Your task to perform on an android device: Empty the shopping cart on amazon.com. Image 0: 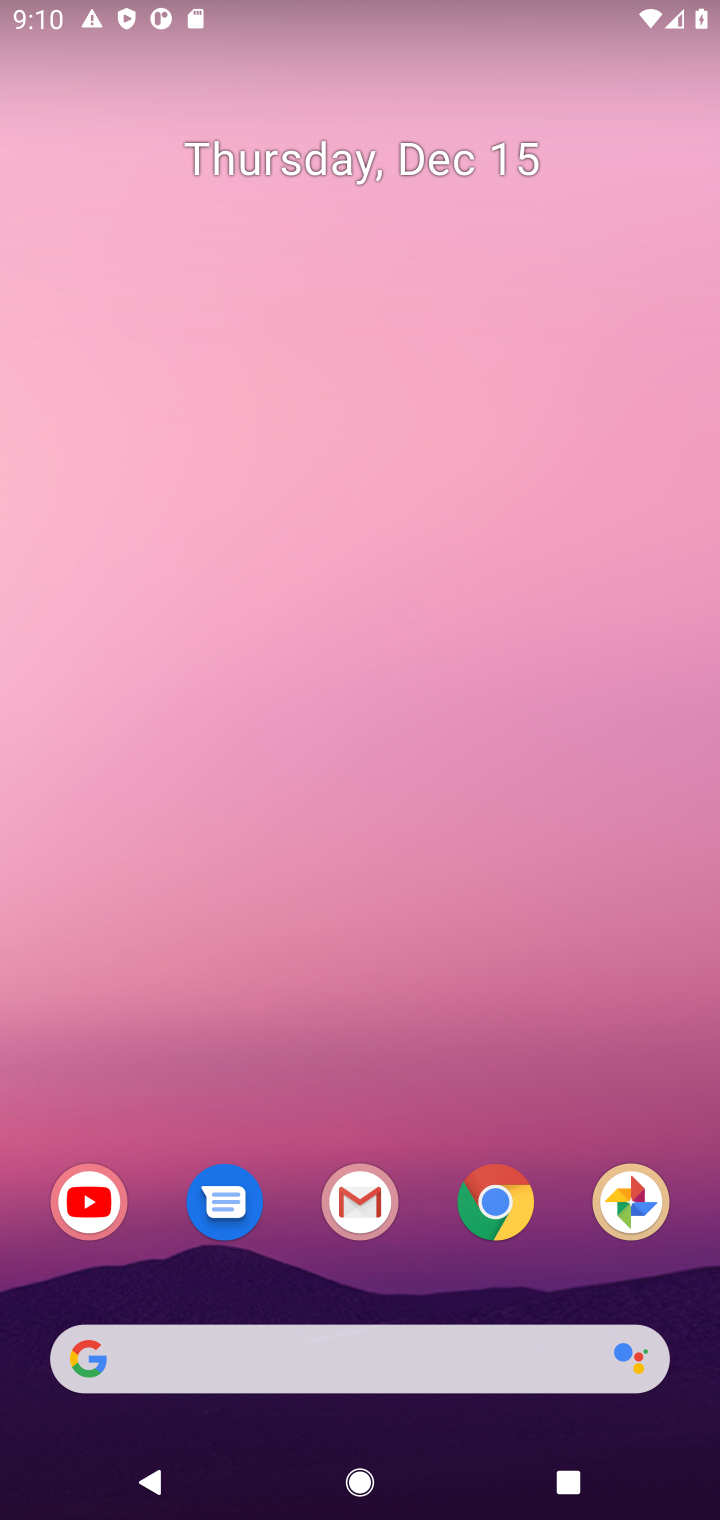
Step 0: click (497, 1196)
Your task to perform on an android device: Empty the shopping cart on amazon.com. Image 1: 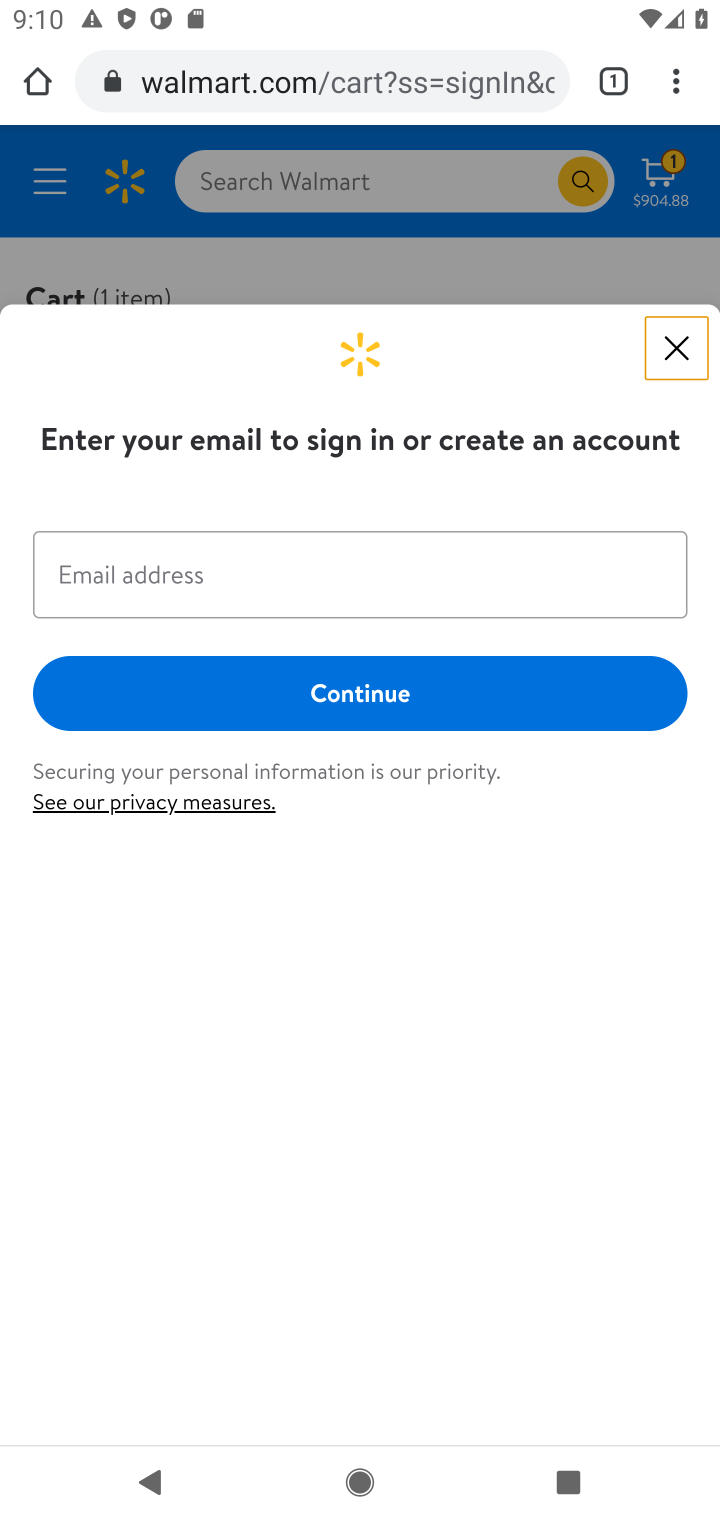
Step 1: click (281, 74)
Your task to perform on an android device: Empty the shopping cart on amazon.com. Image 2: 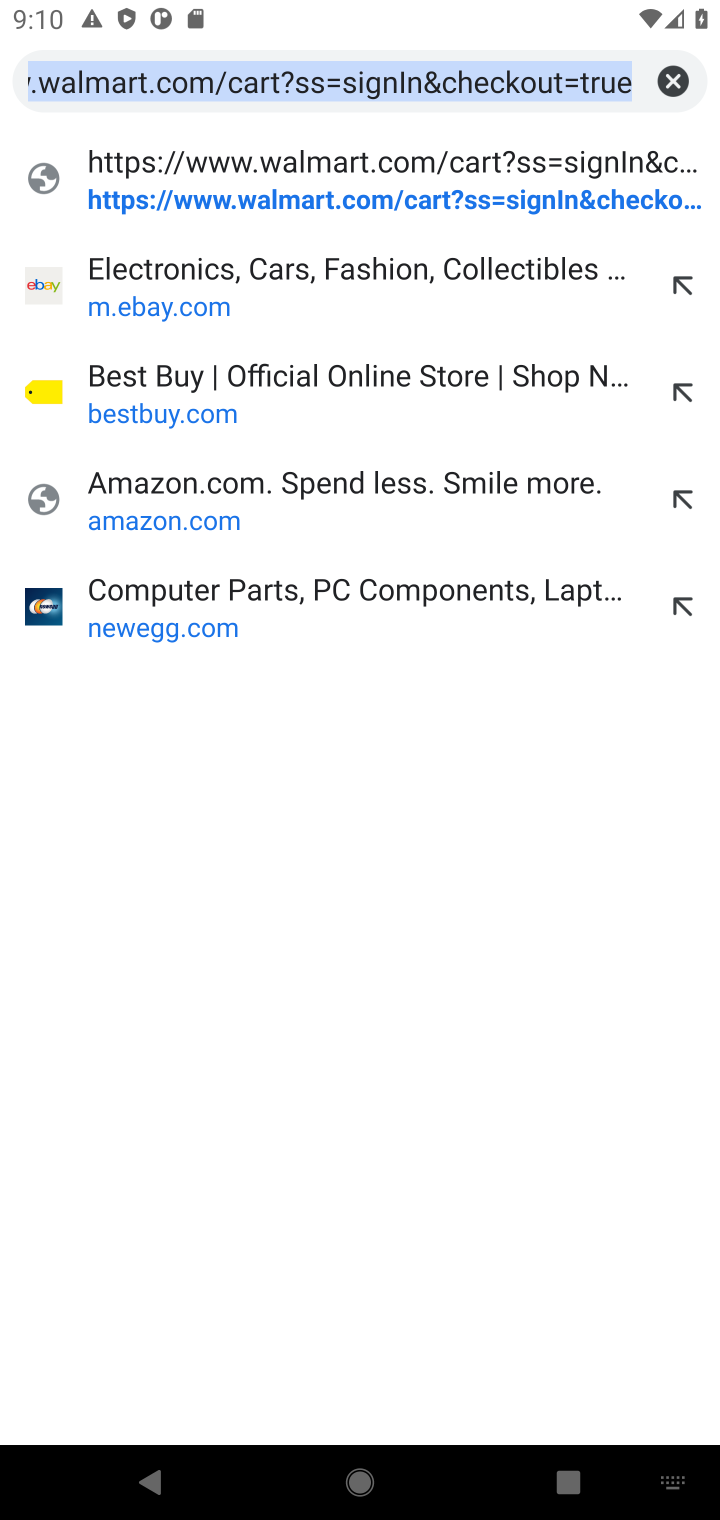
Step 2: click (143, 518)
Your task to perform on an android device: Empty the shopping cart on amazon.com. Image 3: 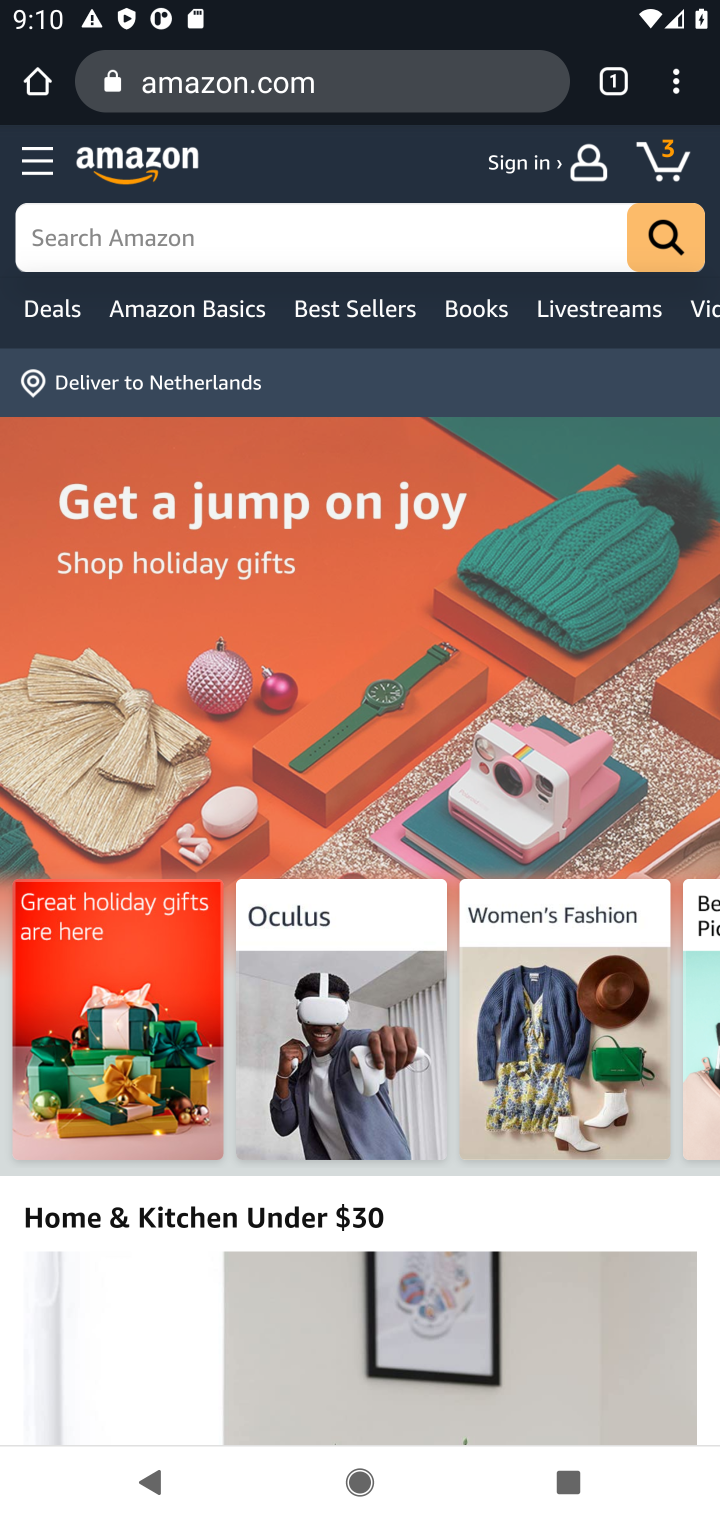
Step 3: click (651, 157)
Your task to perform on an android device: Empty the shopping cart on amazon.com. Image 4: 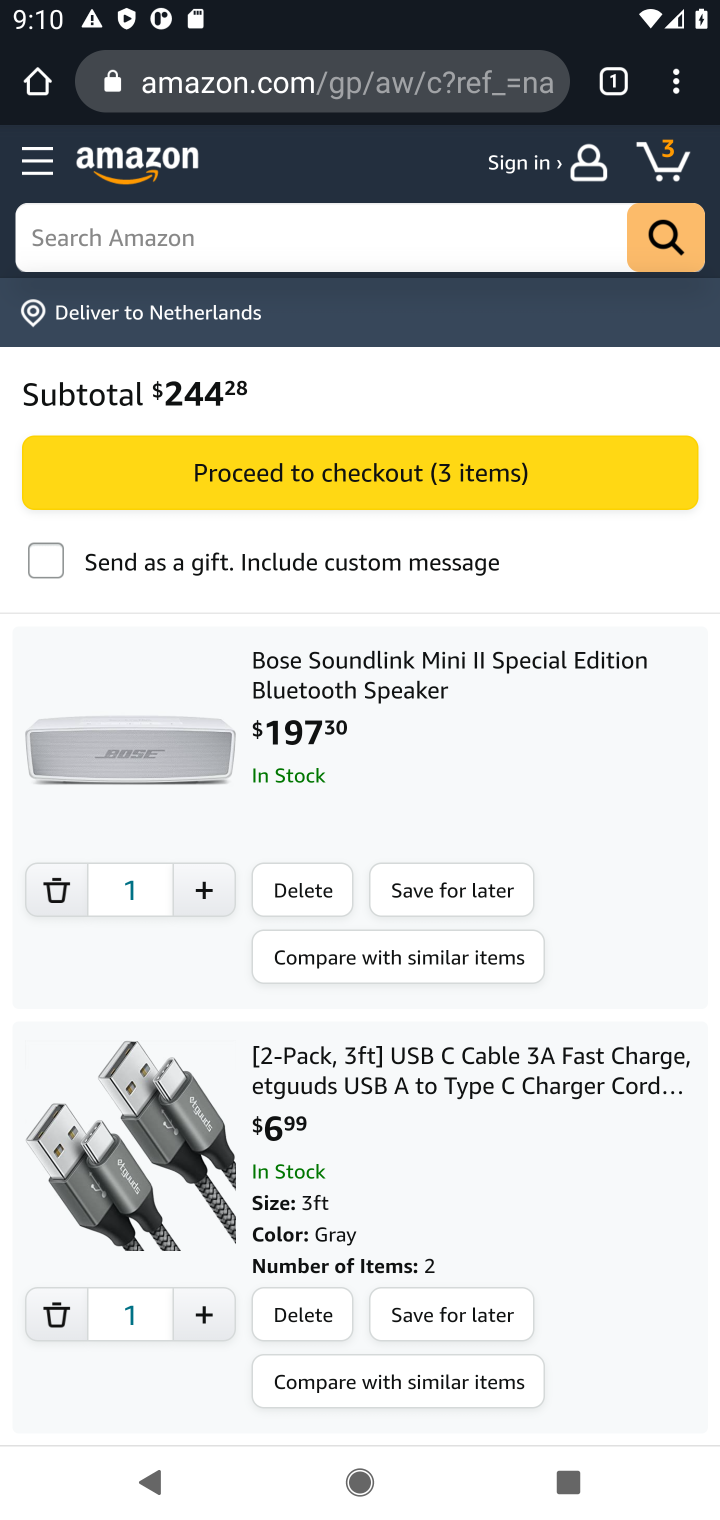
Step 4: click (300, 895)
Your task to perform on an android device: Empty the shopping cart on amazon.com. Image 5: 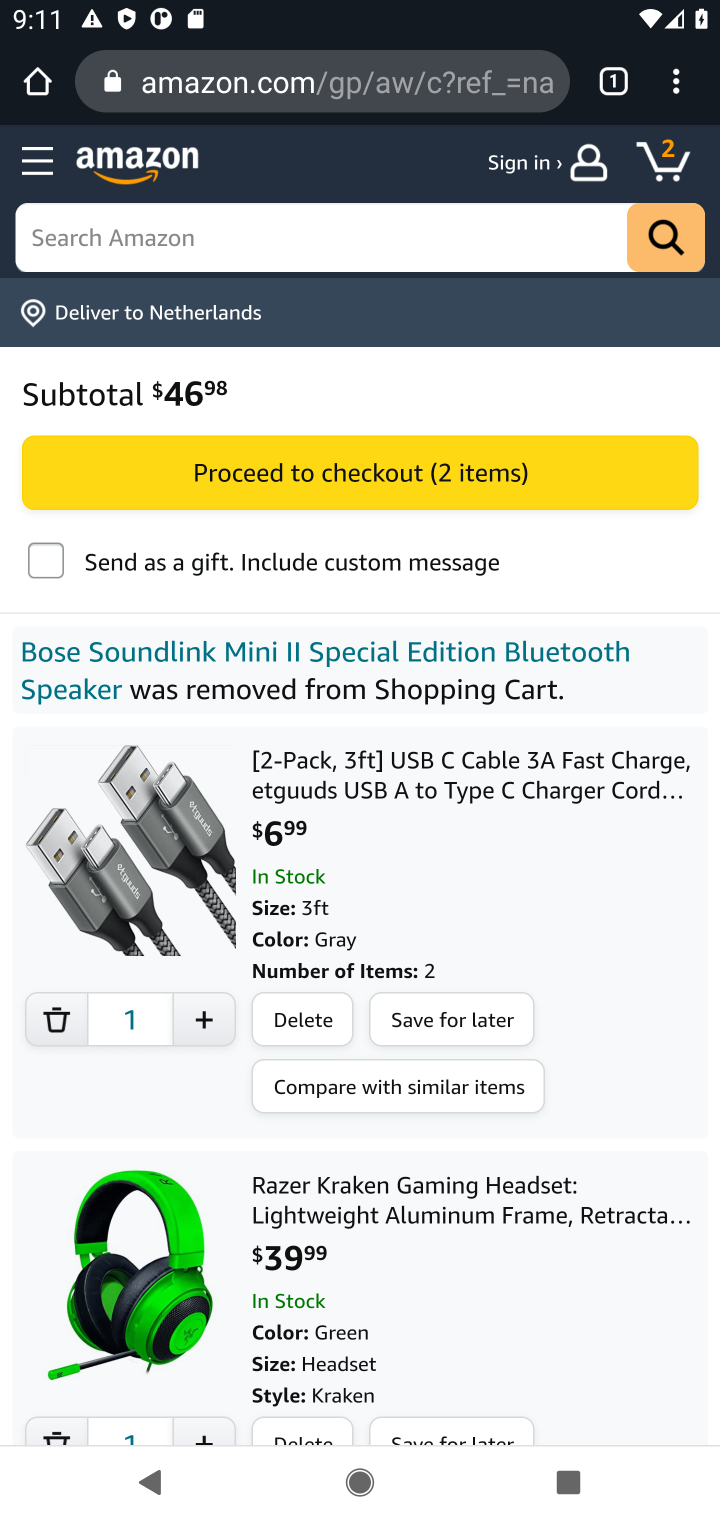
Step 5: click (299, 1011)
Your task to perform on an android device: Empty the shopping cart on amazon.com. Image 6: 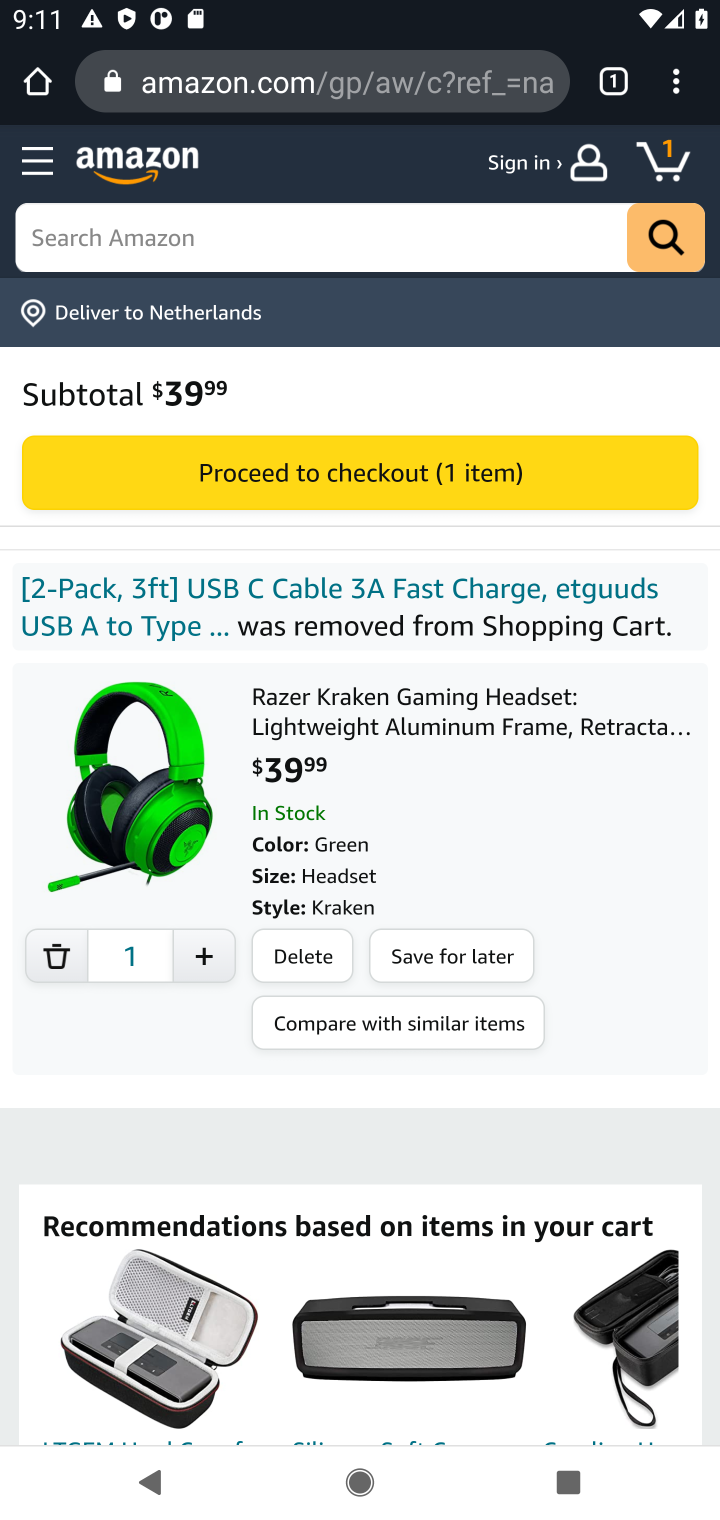
Step 6: click (298, 958)
Your task to perform on an android device: Empty the shopping cart on amazon.com. Image 7: 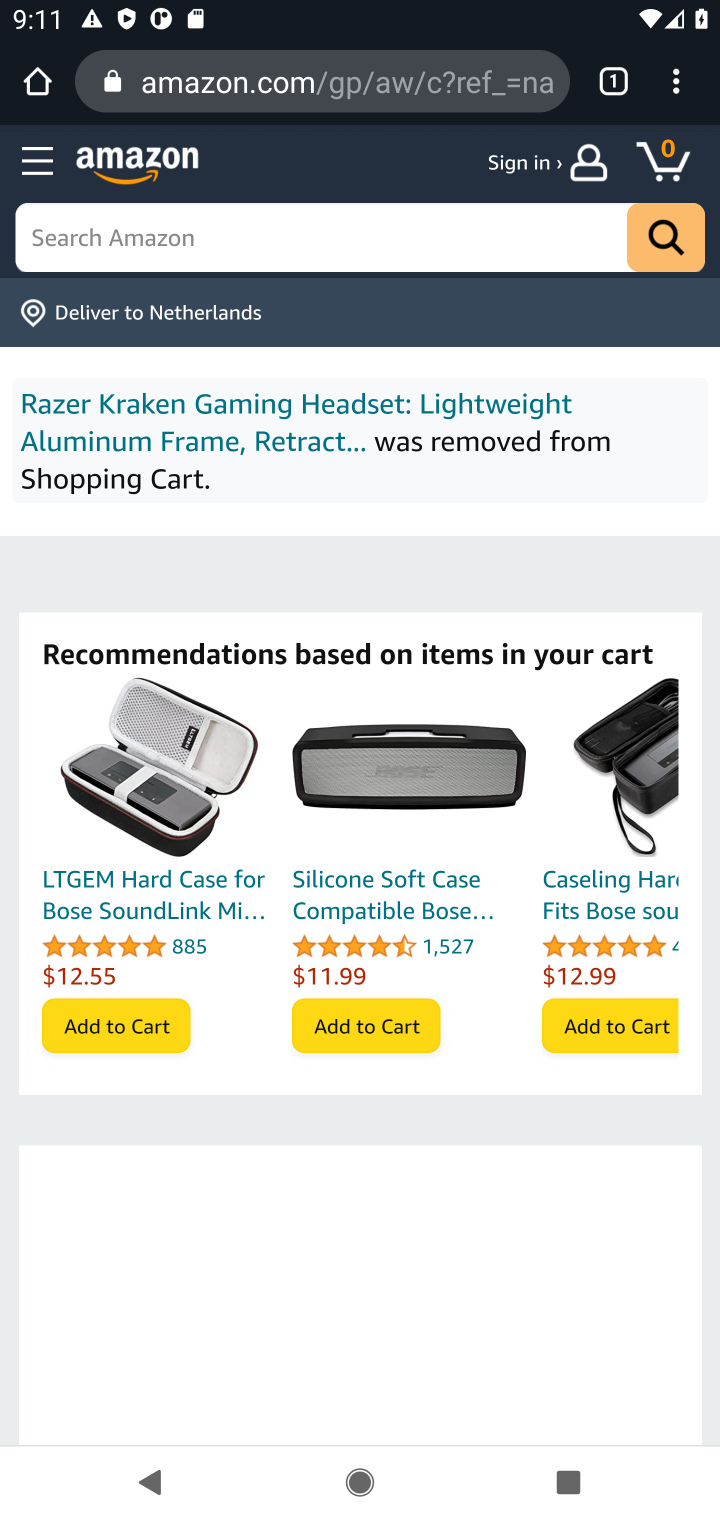
Step 7: task complete